Your task to perform on an android device: Show me popular games on the Play Store Image 0: 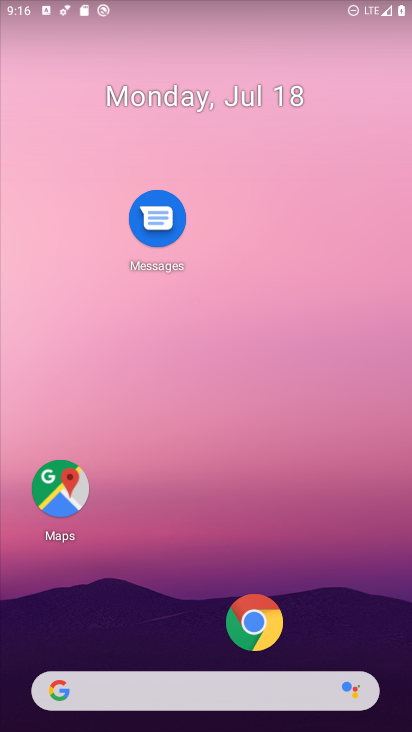
Step 0: drag from (271, 666) to (314, 28)
Your task to perform on an android device: Show me popular games on the Play Store Image 1: 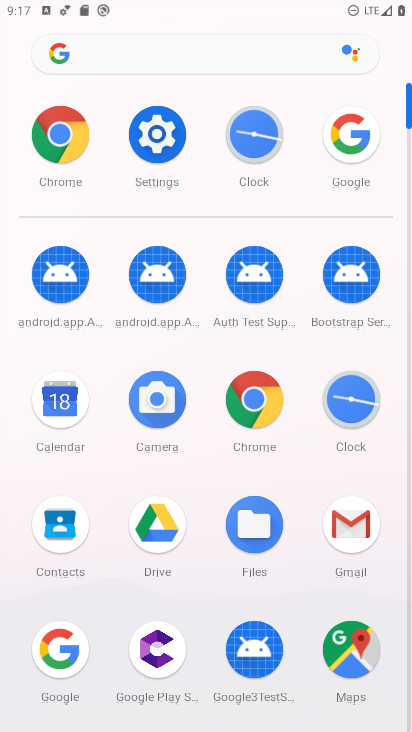
Step 1: drag from (286, 536) to (344, 64)
Your task to perform on an android device: Show me popular games on the Play Store Image 2: 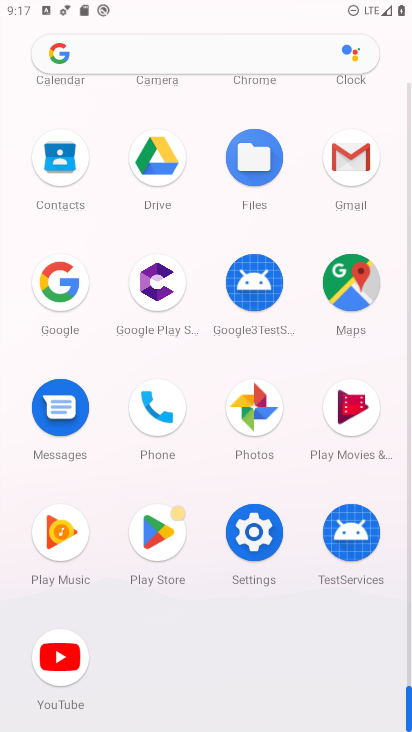
Step 2: click (175, 542)
Your task to perform on an android device: Show me popular games on the Play Store Image 3: 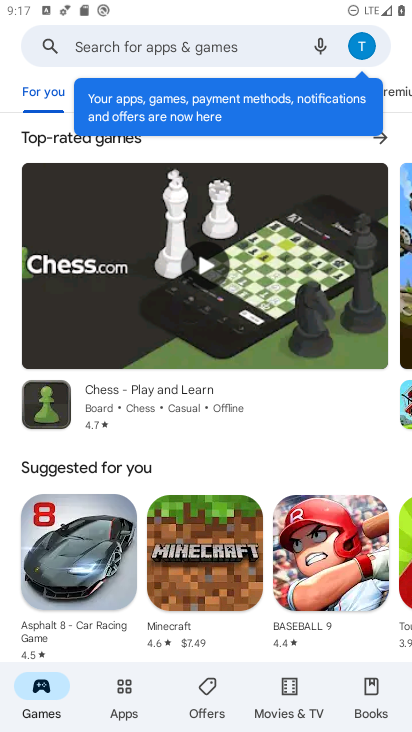
Step 3: task complete